Your task to perform on an android device: turn on bluetooth scan Image 0: 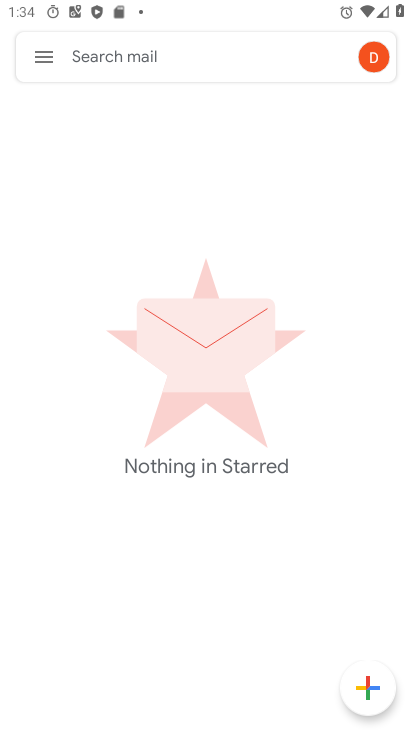
Step 0: press home button
Your task to perform on an android device: turn on bluetooth scan Image 1: 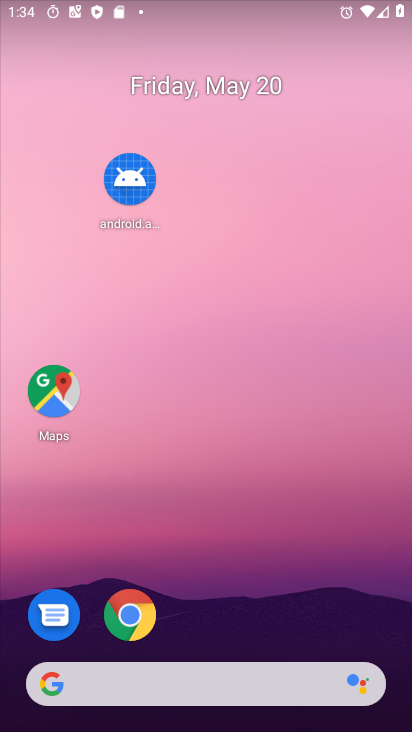
Step 1: drag from (295, 545) to (265, 12)
Your task to perform on an android device: turn on bluetooth scan Image 2: 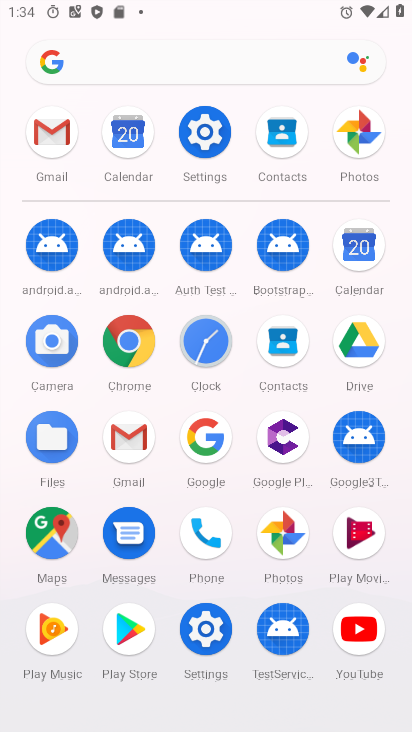
Step 2: click (202, 120)
Your task to perform on an android device: turn on bluetooth scan Image 3: 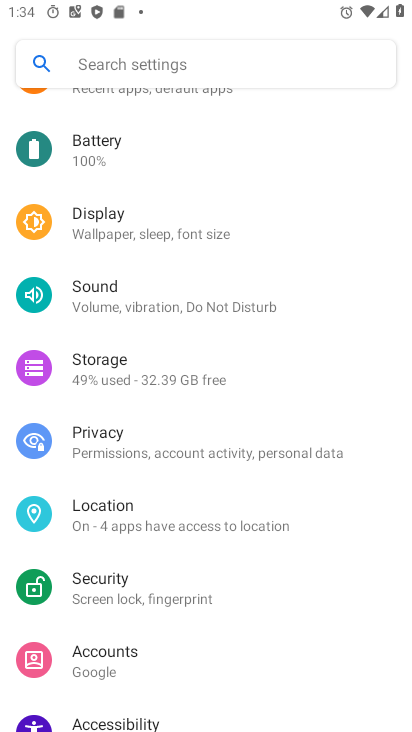
Step 3: click (157, 523)
Your task to perform on an android device: turn on bluetooth scan Image 4: 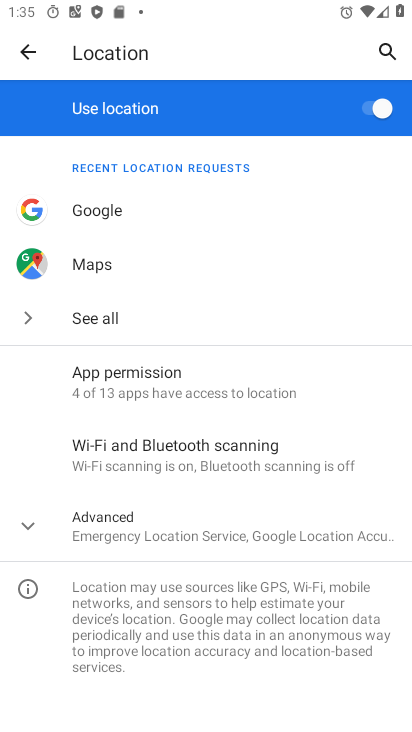
Step 4: click (193, 446)
Your task to perform on an android device: turn on bluetooth scan Image 5: 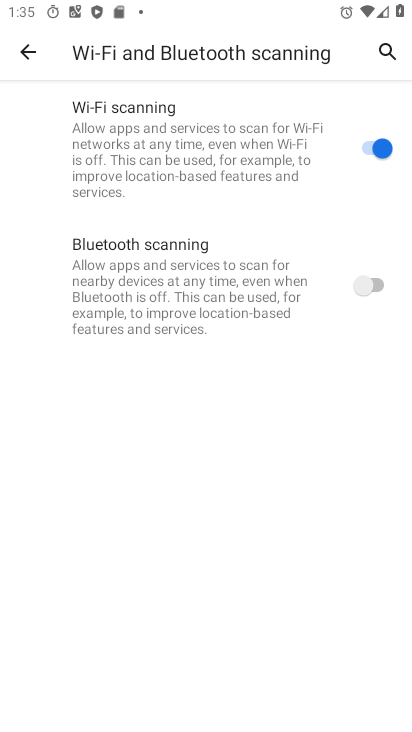
Step 5: click (368, 285)
Your task to perform on an android device: turn on bluetooth scan Image 6: 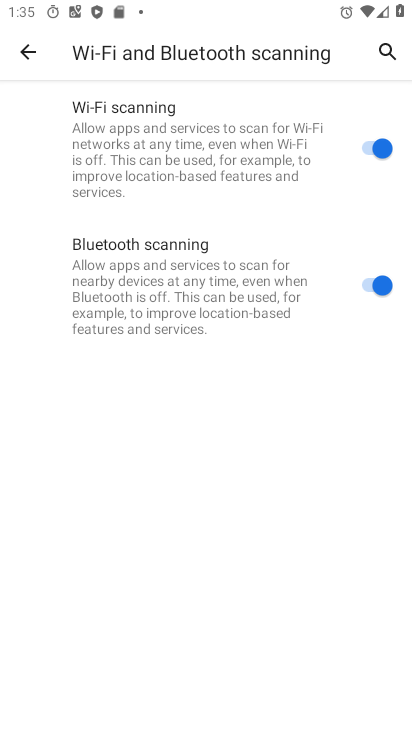
Step 6: task complete